Your task to perform on an android device: turn on airplane mode Image 0: 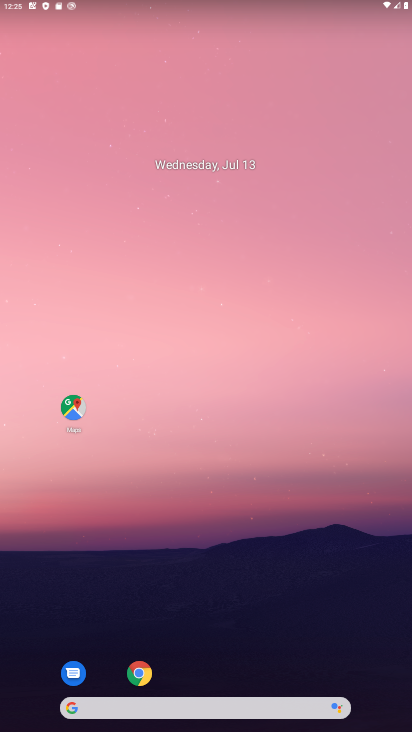
Step 0: drag from (299, 650) to (307, 112)
Your task to perform on an android device: turn on airplane mode Image 1: 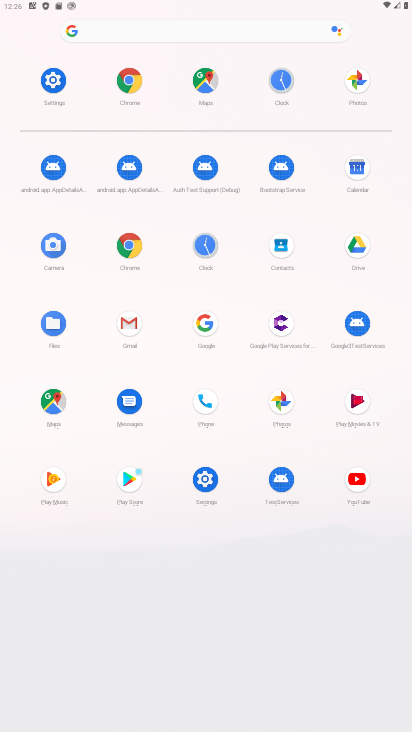
Step 1: click (71, 105)
Your task to perform on an android device: turn on airplane mode Image 2: 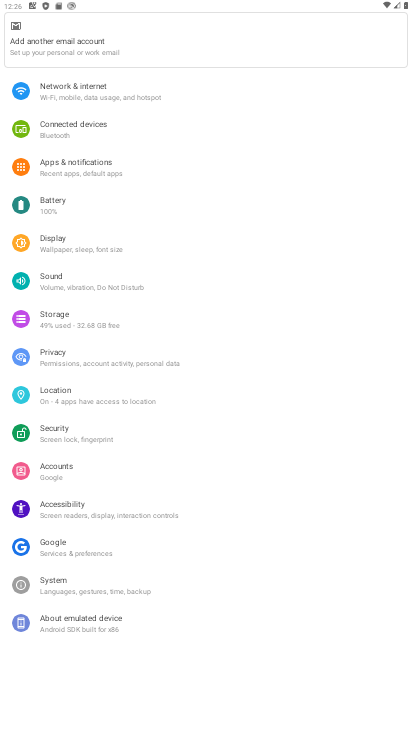
Step 2: click (151, 97)
Your task to perform on an android device: turn on airplane mode Image 3: 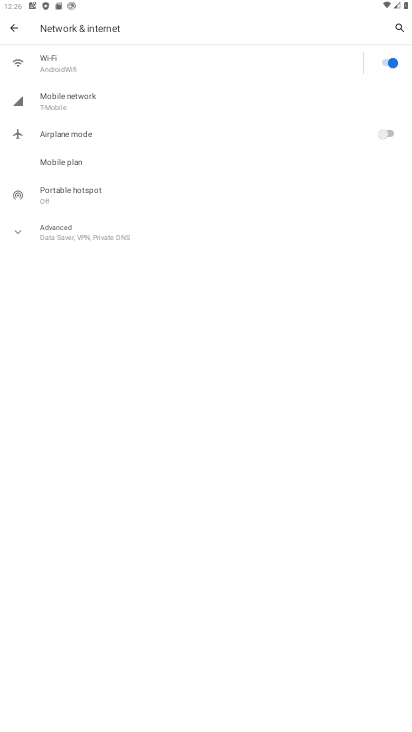
Step 3: click (387, 128)
Your task to perform on an android device: turn on airplane mode Image 4: 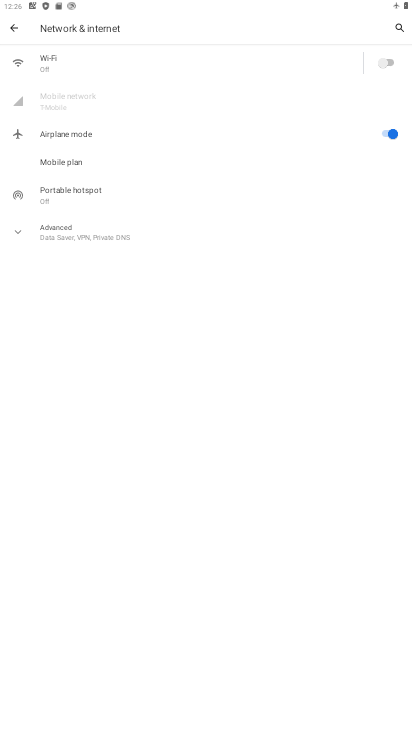
Step 4: task complete